Your task to perform on an android device: toggle wifi Image 0: 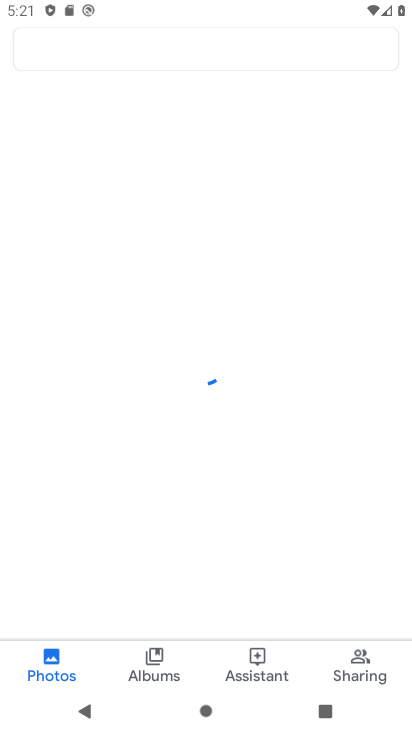
Step 0: press home button
Your task to perform on an android device: toggle wifi Image 1: 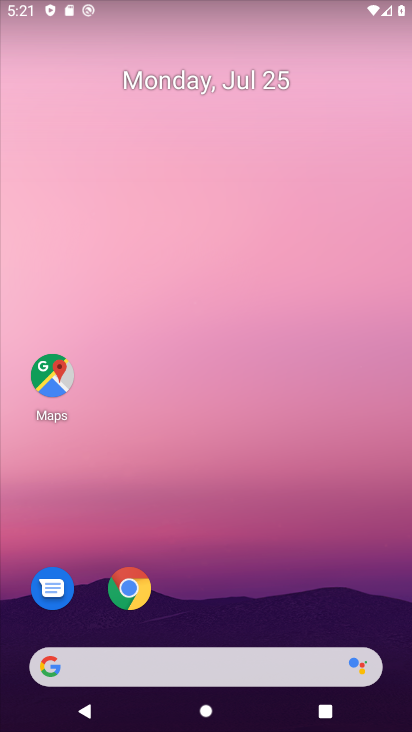
Step 1: drag from (190, 664) to (226, 62)
Your task to perform on an android device: toggle wifi Image 2: 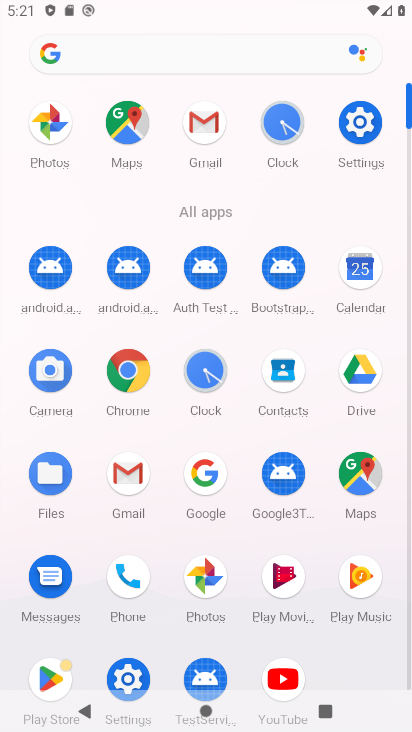
Step 2: click (358, 123)
Your task to perform on an android device: toggle wifi Image 3: 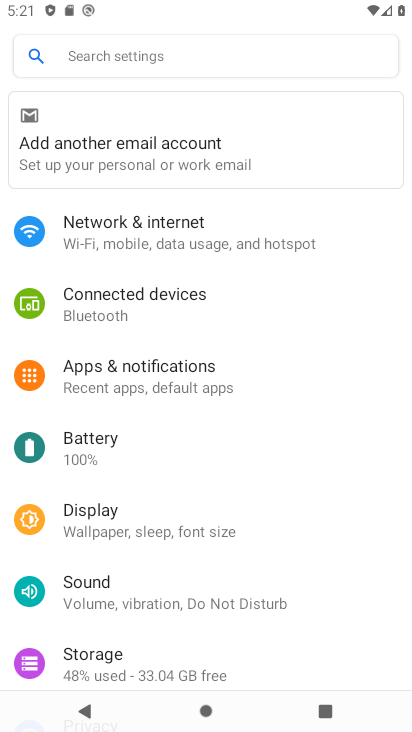
Step 3: click (198, 239)
Your task to perform on an android device: toggle wifi Image 4: 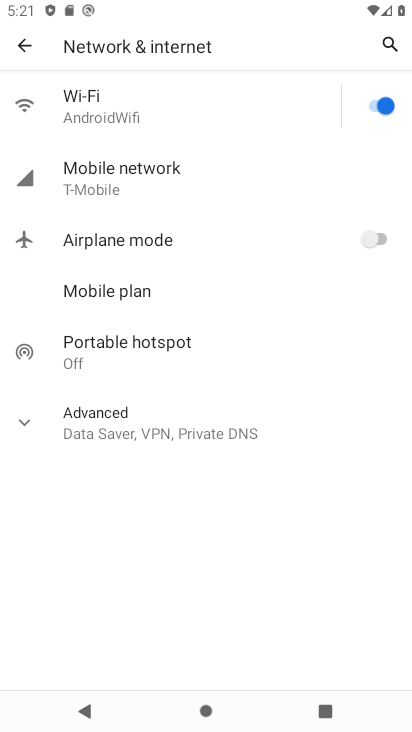
Step 4: click (371, 112)
Your task to perform on an android device: toggle wifi Image 5: 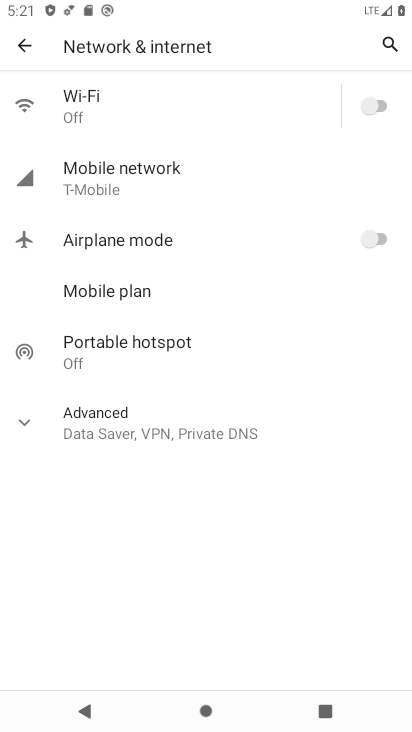
Step 5: task complete